Your task to perform on an android device: refresh tabs in the chrome app Image 0: 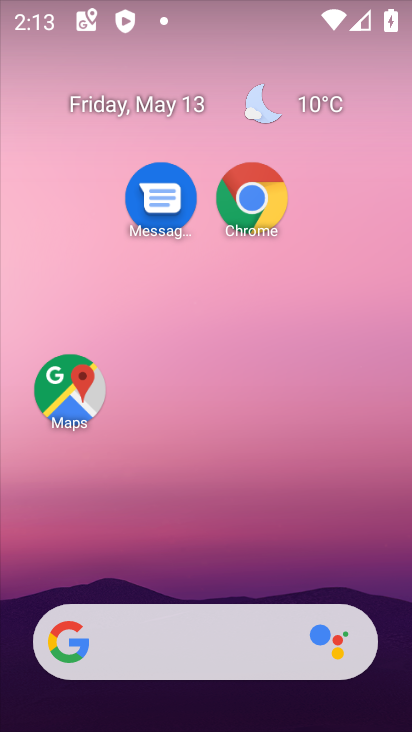
Step 0: click (246, 226)
Your task to perform on an android device: refresh tabs in the chrome app Image 1: 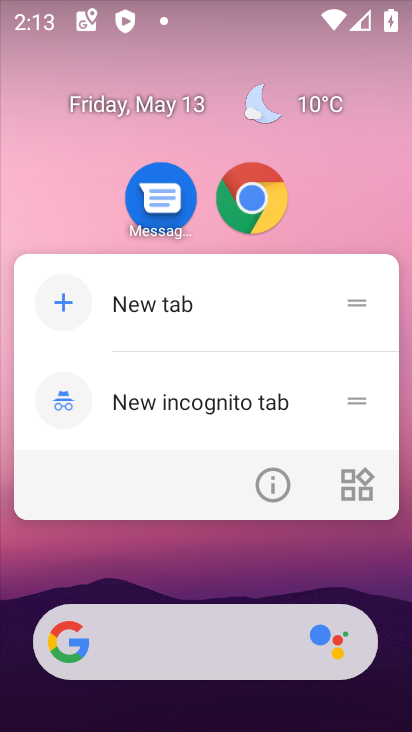
Step 1: click (268, 199)
Your task to perform on an android device: refresh tabs in the chrome app Image 2: 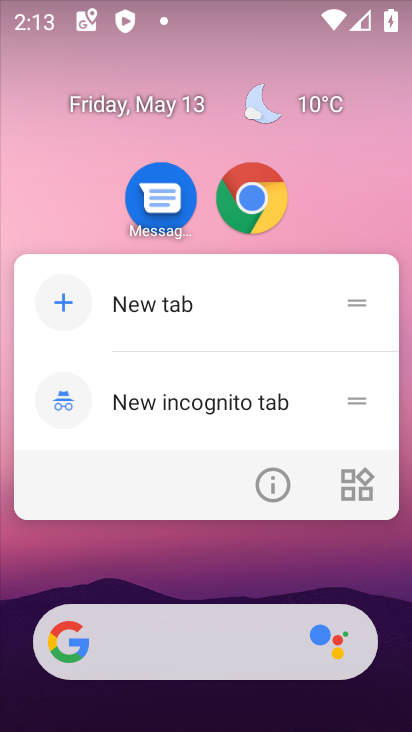
Step 2: click (260, 188)
Your task to perform on an android device: refresh tabs in the chrome app Image 3: 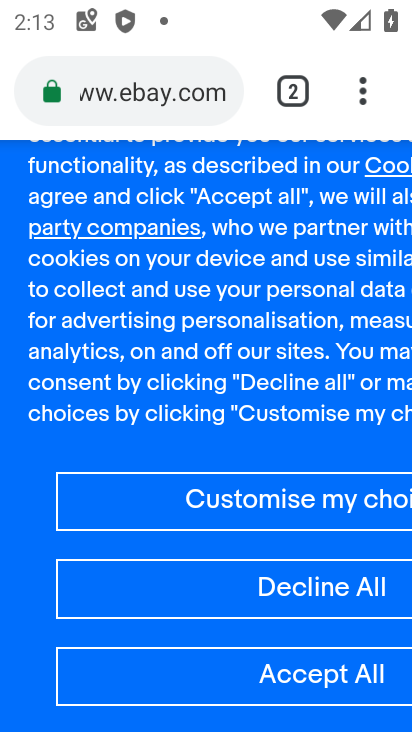
Step 3: click (357, 92)
Your task to perform on an android device: refresh tabs in the chrome app Image 4: 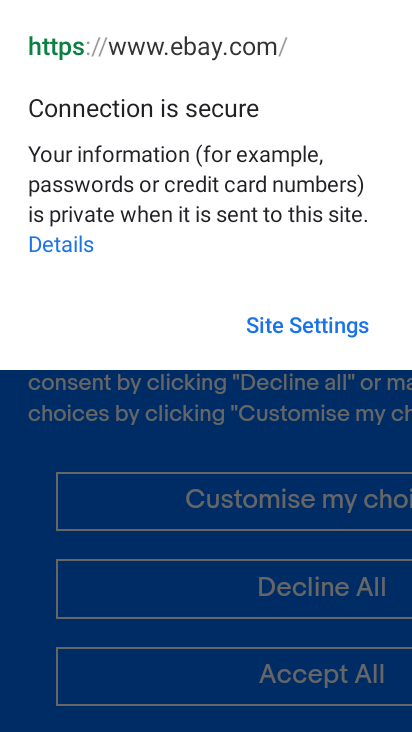
Step 4: drag from (357, 92) to (340, 425)
Your task to perform on an android device: refresh tabs in the chrome app Image 5: 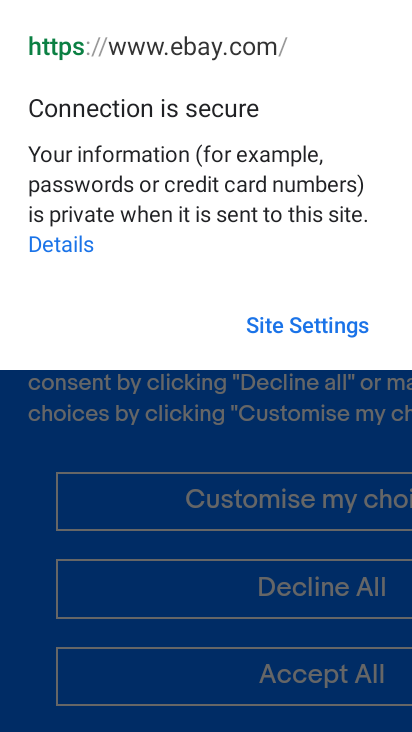
Step 5: click (340, 425)
Your task to perform on an android device: refresh tabs in the chrome app Image 6: 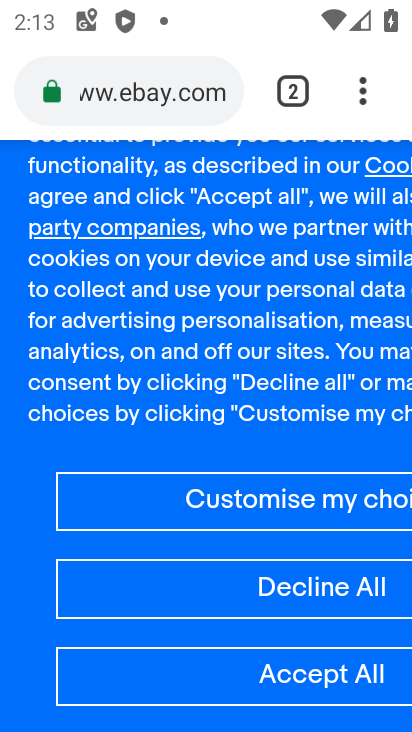
Step 6: drag from (350, 92) to (144, 67)
Your task to perform on an android device: refresh tabs in the chrome app Image 7: 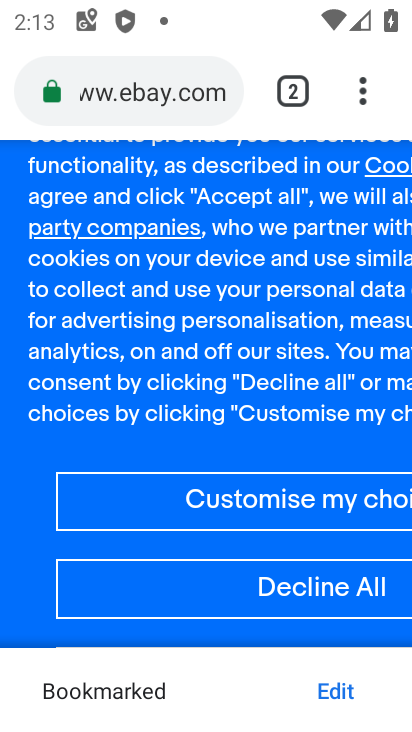
Step 7: click (399, 89)
Your task to perform on an android device: refresh tabs in the chrome app Image 8: 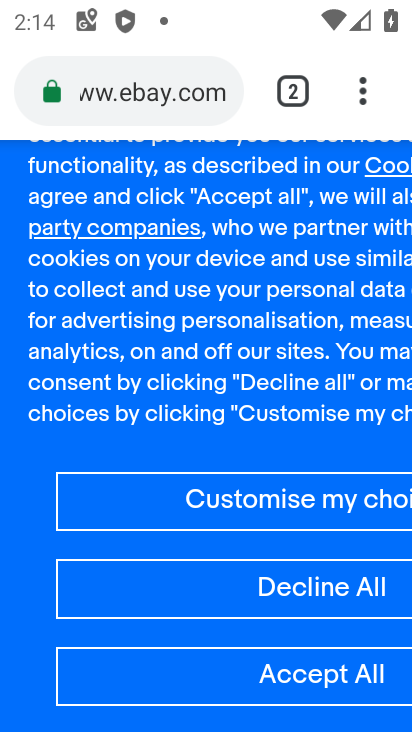
Step 8: task complete